Your task to perform on an android device: set the stopwatch Image 0: 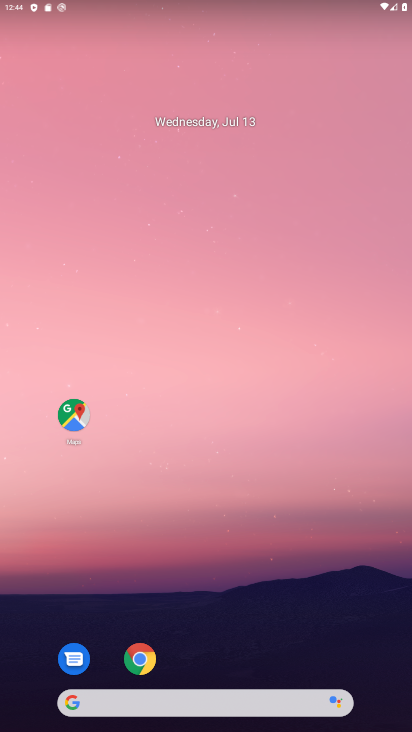
Step 0: drag from (291, 712) to (347, 240)
Your task to perform on an android device: set the stopwatch Image 1: 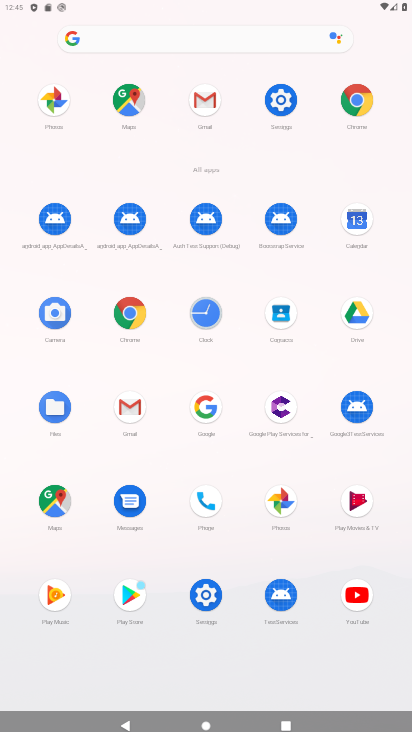
Step 1: click (204, 311)
Your task to perform on an android device: set the stopwatch Image 2: 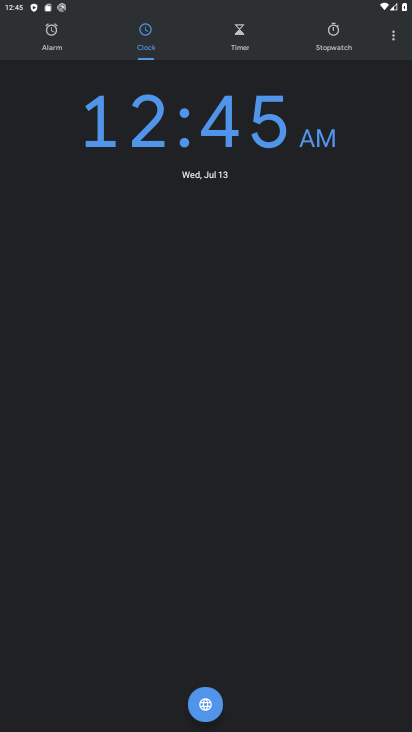
Step 2: click (334, 43)
Your task to perform on an android device: set the stopwatch Image 3: 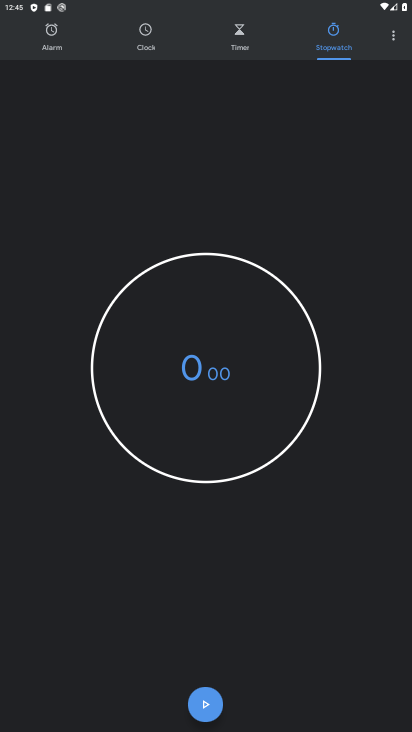
Step 3: click (220, 699)
Your task to perform on an android device: set the stopwatch Image 4: 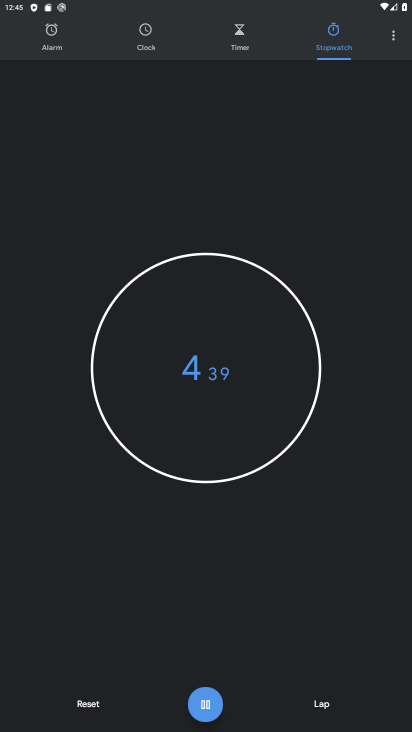
Step 4: task complete